Your task to perform on an android device: Is it going to rain this weekend? Image 0: 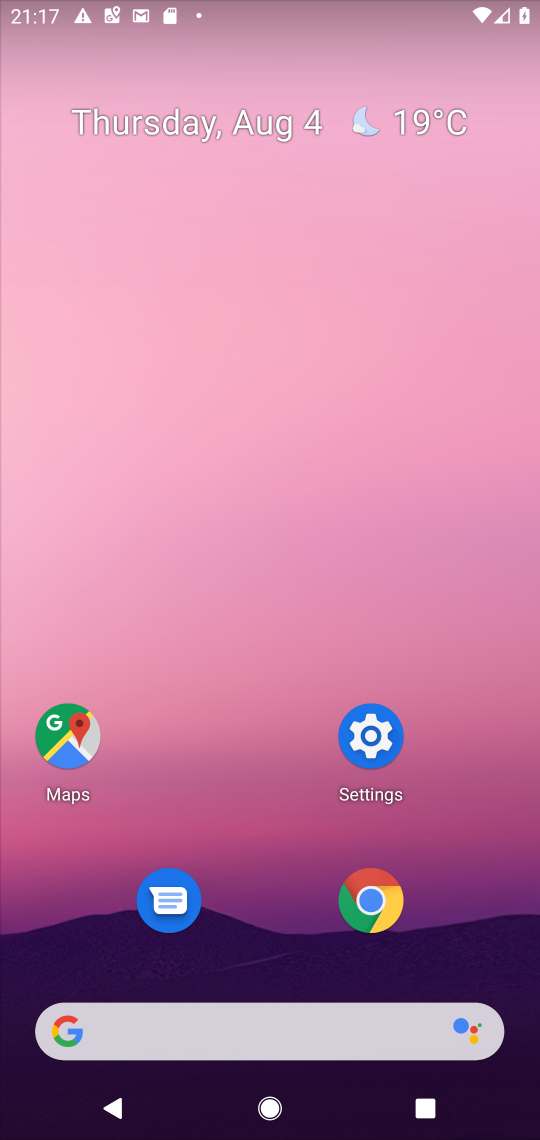
Step 0: click (193, 1021)
Your task to perform on an android device: Is it going to rain this weekend? Image 1: 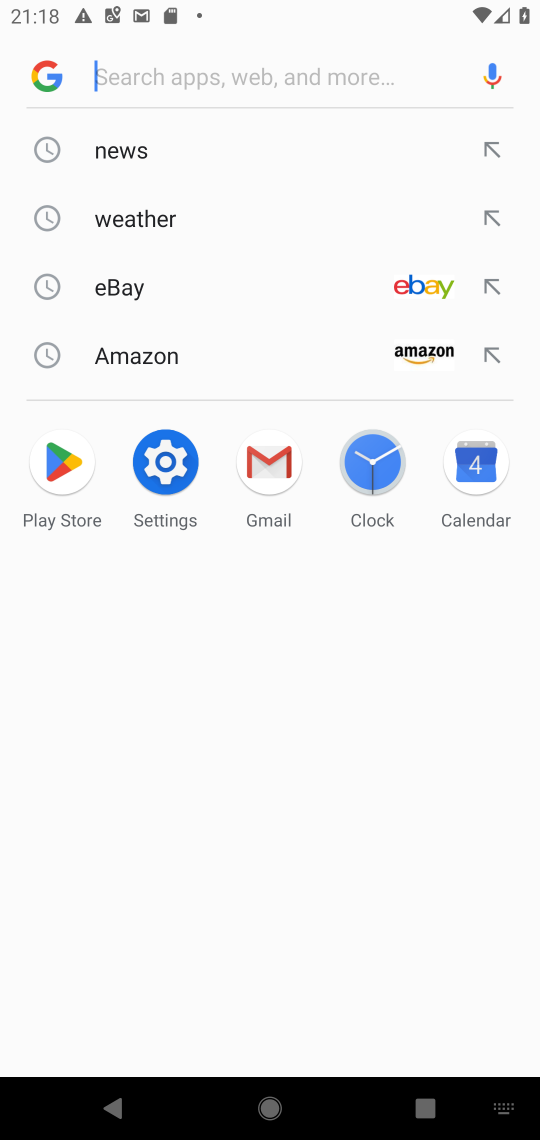
Step 1: click (130, 212)
Your task to perform on an android device: Is it going to rain this weekend? Image 2: 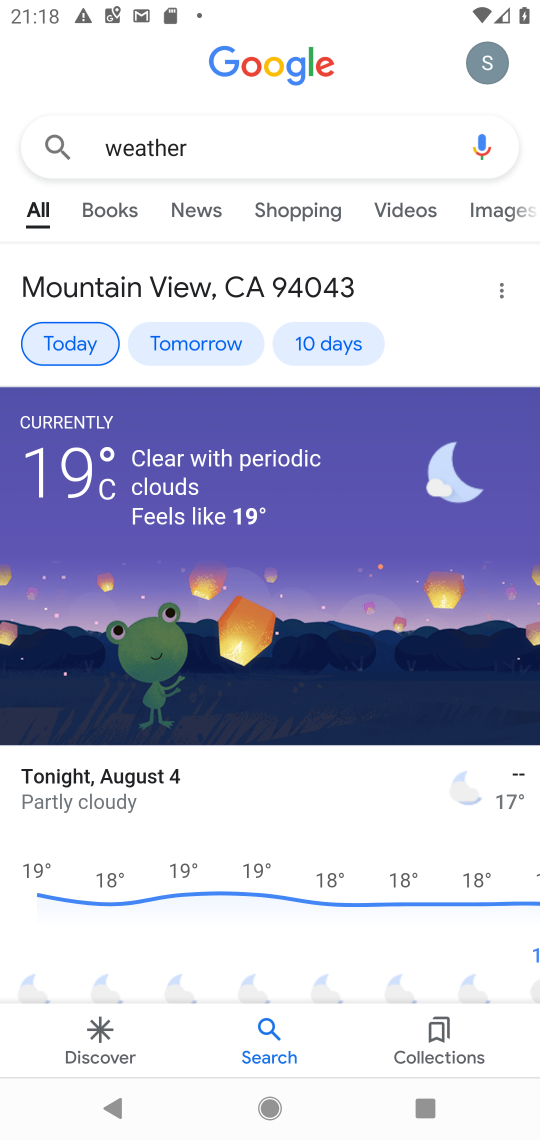
Step 2: click (313, 343)
Your task to perform on an android device: Is it going to rain this weekend? Image 3: 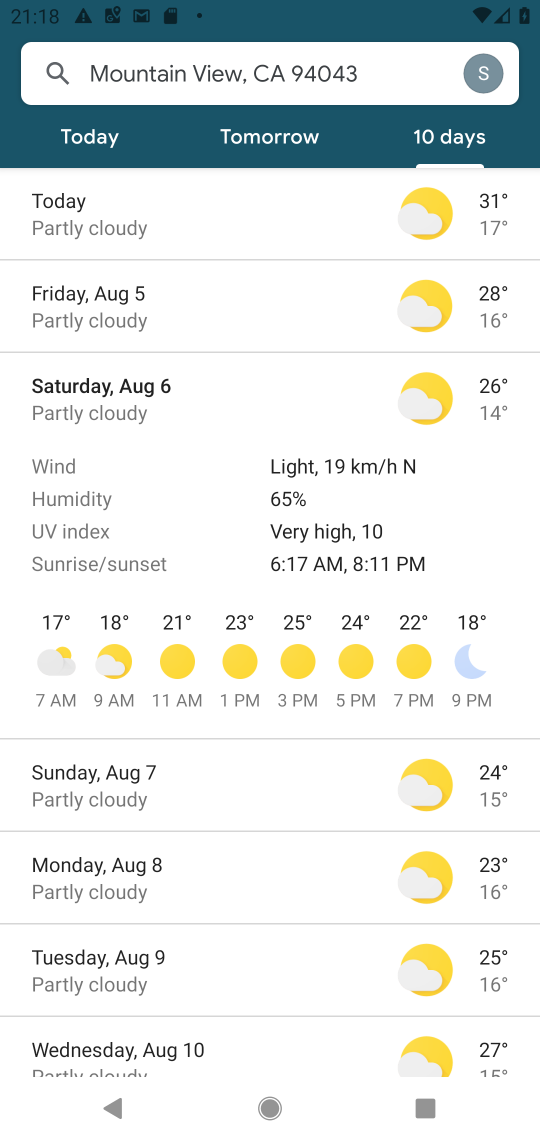
Step 3: task complete